Your task to perform on an android device: check battery use Image 0: 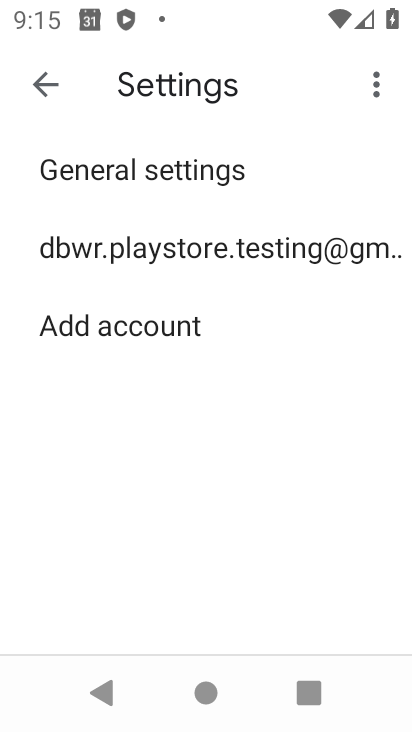
Step 0: press home button
Your task to perform on an android device: check battery use Image 1: 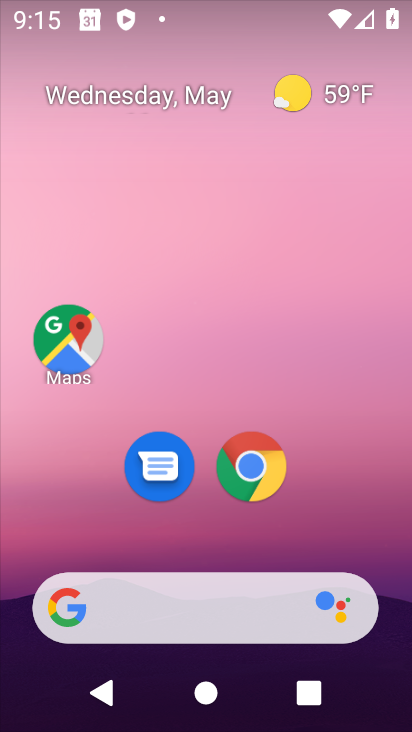
Step 1: drag from (314, 507) to (327, 269)
Your task to perform on an android device: check battery use Image 2: 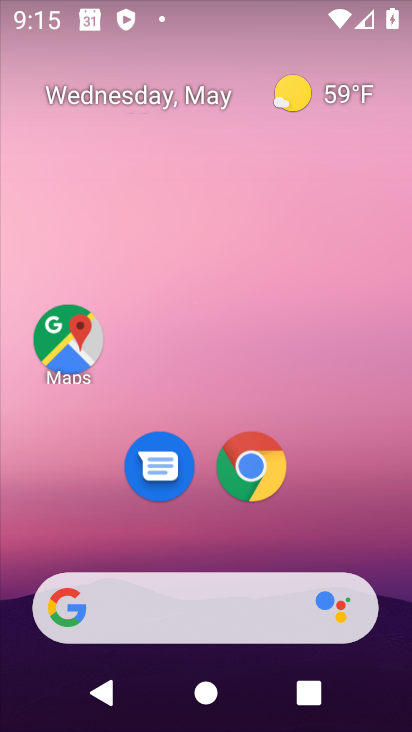
Step 2: drag from (319, 509) to (341, 206)
Your task to perform on an android device: check battery use Image 3: 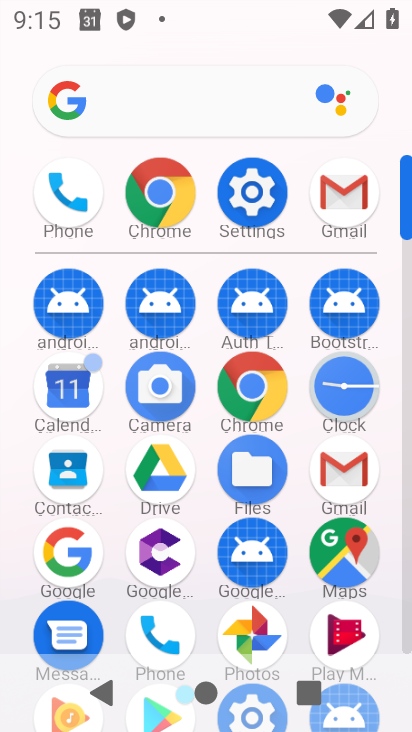
Step 3: click (249, 185)
Your task to perform on an android device: check battery use Image 4: 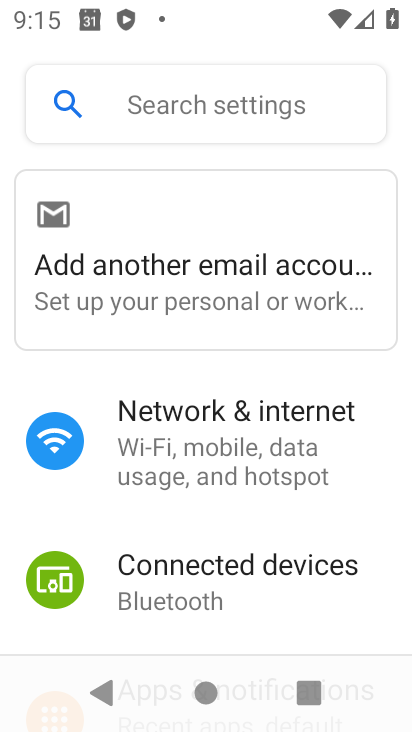
Step 4: drag from (265, 614) to (210, 191)
Your task to perform on an android device: check battery use Image 5: 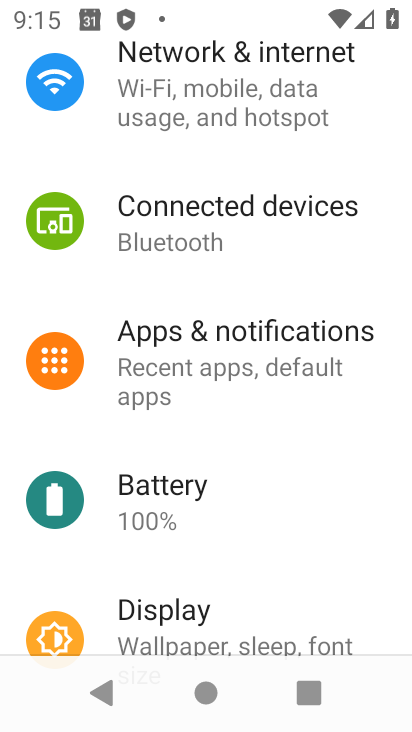
Step 5: click (193, 498)
Your task to perform on an android device: check battery use Image 6: 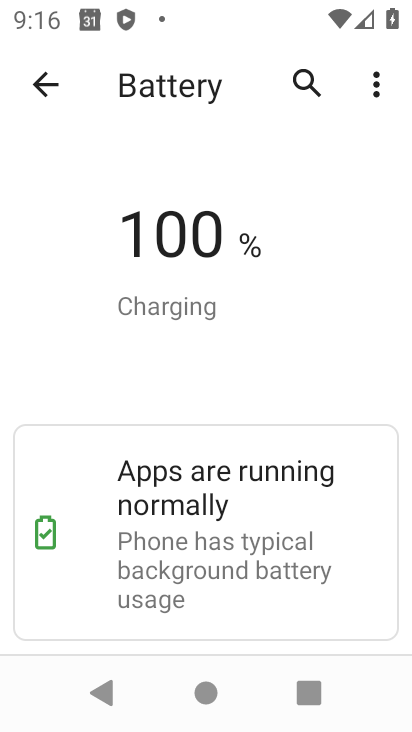
Step 6: drag from (293, 584) to (344, 262)
Your task to perform on an android device: check battery use Image 7: 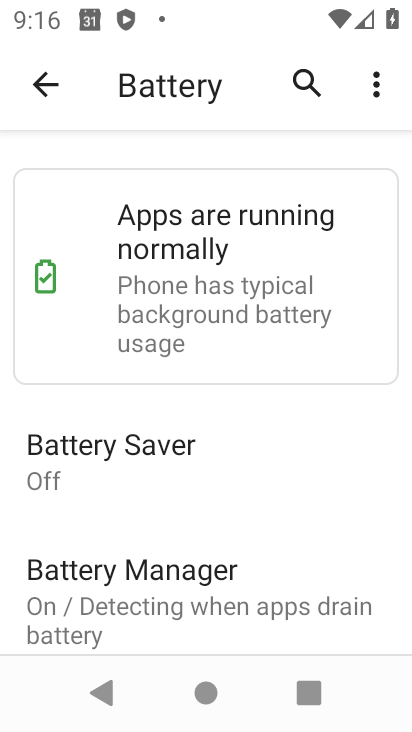
Step 7: drag from (189, 605) to (233, 313)
Your task to perform on an android device: check battery use Image 8: 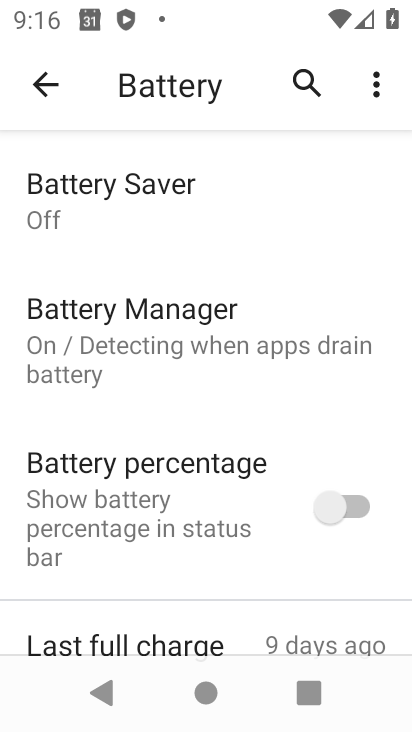
Step 8: click (143, 335)
Your task to perform on an android device: check battery use Image 9: 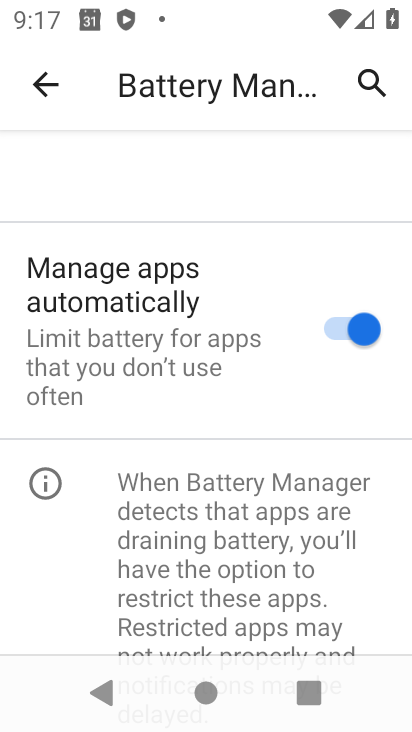
Step 9: task complete